Your task to perform on an android device: Open notification settings Image 0: 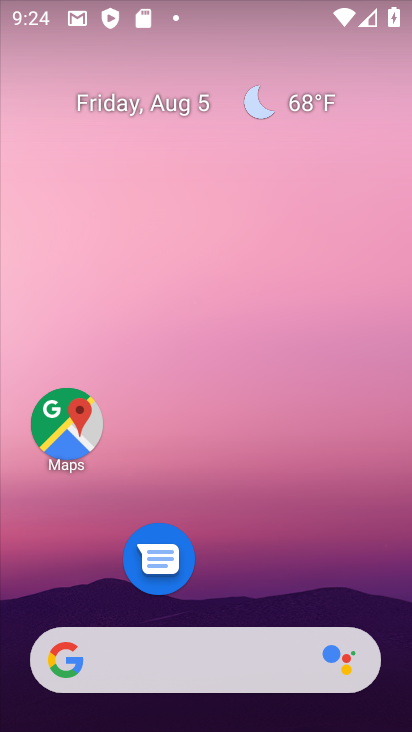
Step 0: drag from (322, 536) to (285, 48)
Your task to perform on an android device: Open notification settings Image 1: 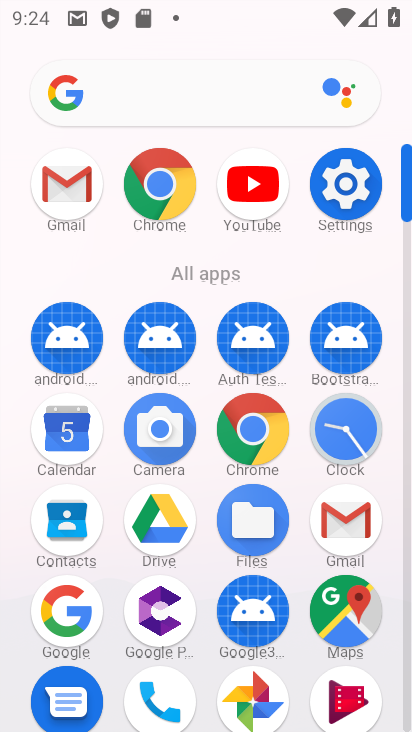
Step 1: click (346, 196)
Your task to perform on an android device: Open notification settings Image 2: 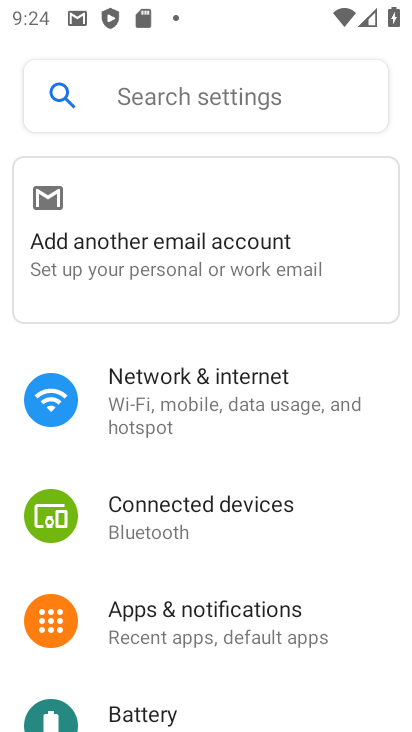
Step 2: click (226, 630)
Your task to perform on an android device: Open notification settings Image 3: 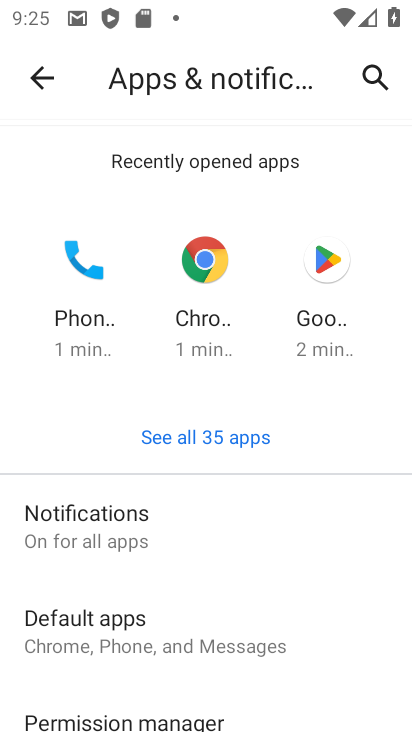
Step 3: click (136, 545)
Your task to perform on an android device: Open notification settings Image 4: 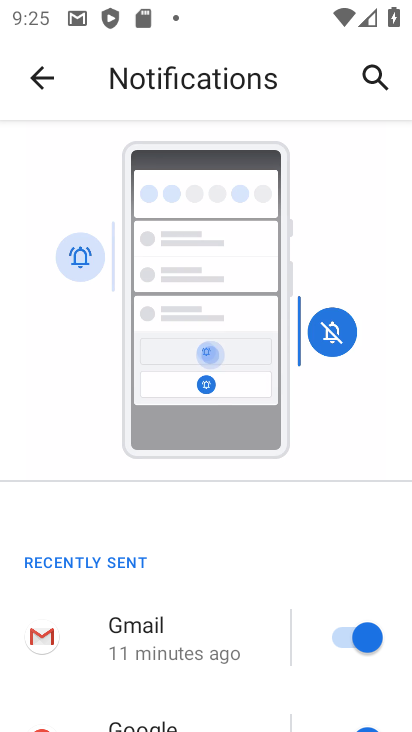
Step 4: task complete